Your task to perform on an android device: Go to eBay Image 0: 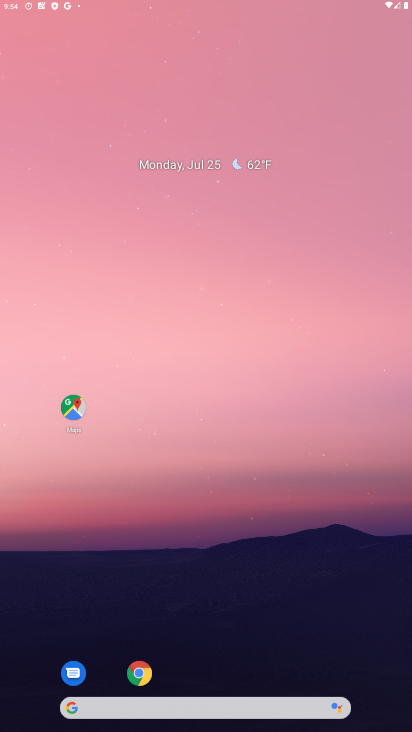
Step 0: click (279, 112)
Your task to perform on an android device: Go to eBay Image 1: 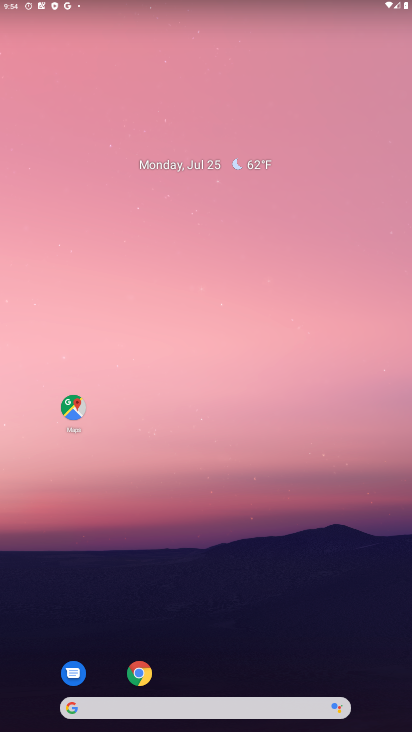
Step 1: press home button
Your task to perform on an android device: Go to eBay Image 2: 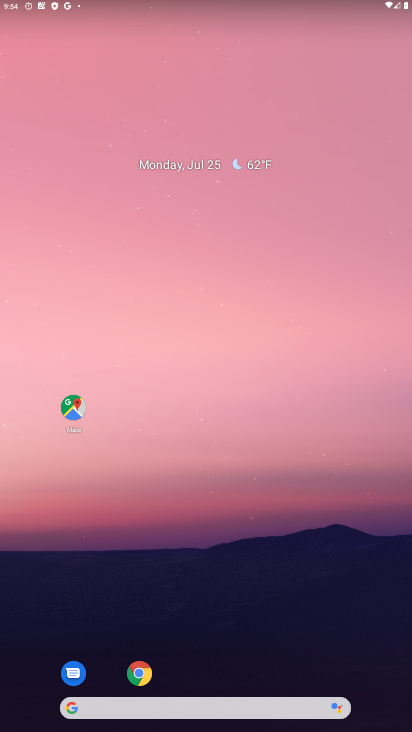
Step 2: press home button
Your task to perform on an android device: Go to eBay Image 3: 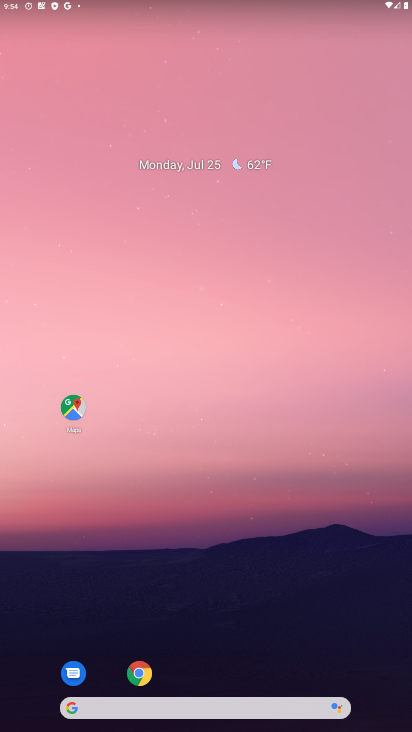
Step 3: drag from (201, 645) to (208, 1)
Your task to perform on an android device: Go to eBay Image 4: 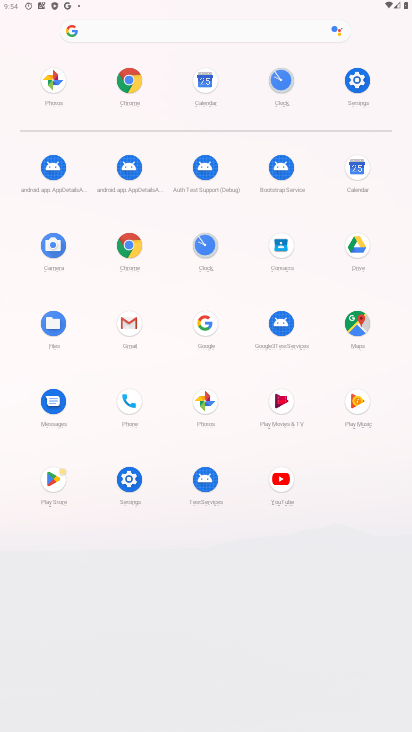
Step 4: click (119, 21)
Your task to perform on an android device: Go to eBay Image 5: 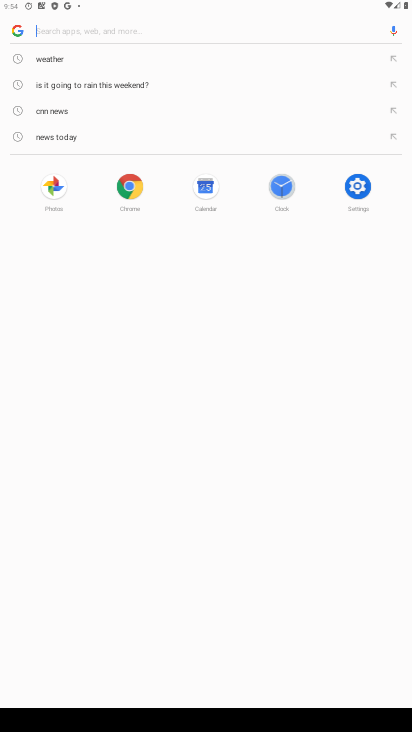
Step 5: type "eBay"
Your task to perform on an android device: Go to eBay Image 6: 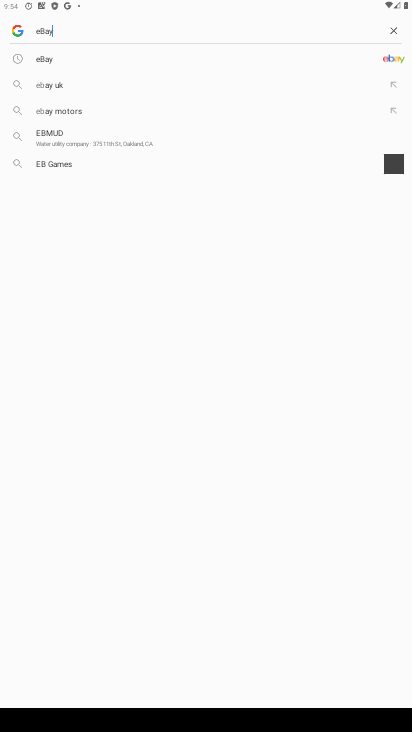
Step 6: type ""
Your task to perform on an android device: Go to eBay Image 7: 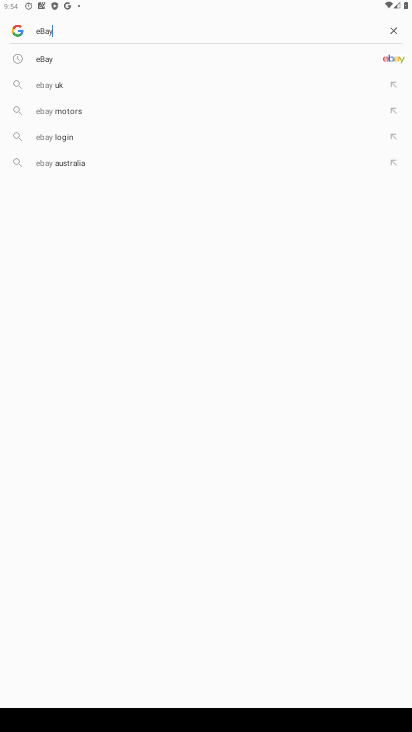
Step 7: click (57, 55)
Your task to perform on an android device: Go to eBay Image 8: 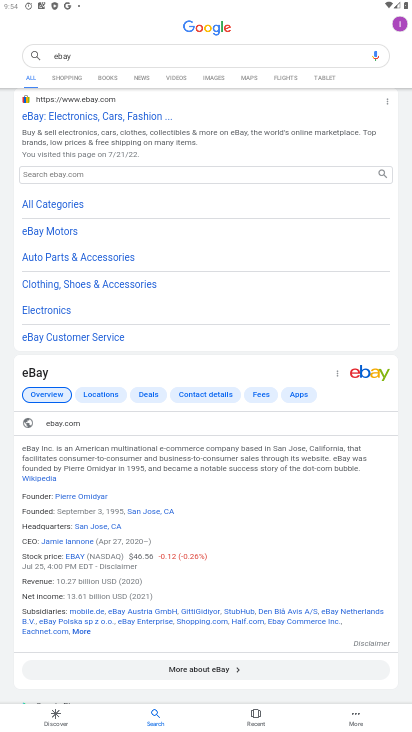
Step 8: drag from (235, 254) to (316, 684)
Your task to perform on an android device: Go to eBay Image 9: 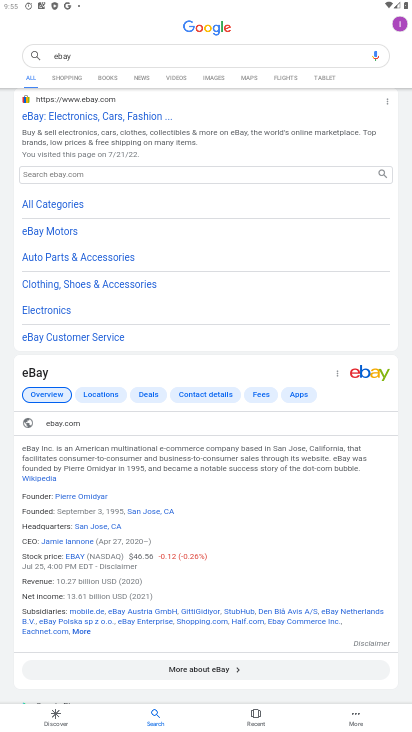
Step 9: click (60, 117)
Your task to perform on an android device: Go to eBay Image 10: 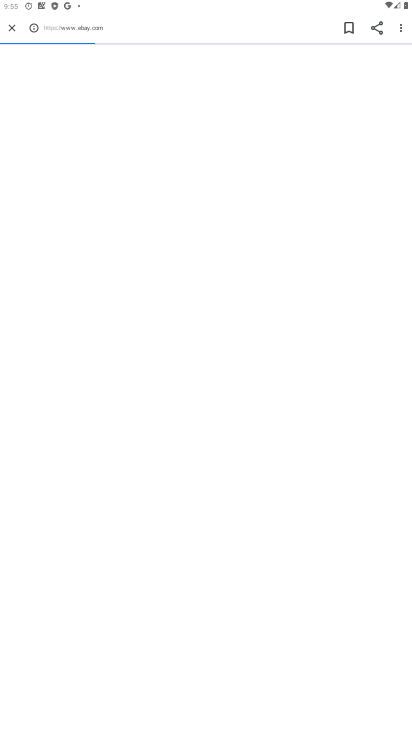
Step 10: task complete